Your task to perform on an android device: turn off sleep mode Image 0: 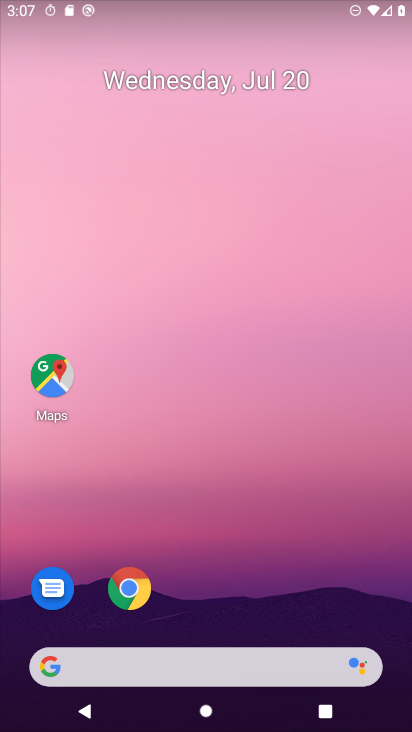
Step 0: drag from (208, 624) to (95, 105)
Your task to perform on an android device: turn off sleep mode Image 1: 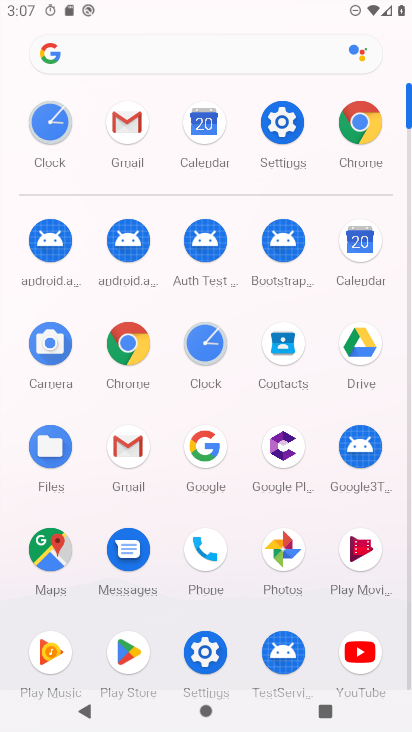
Step 1: click (289, 120)
Your task to perform on an android device: turn off sleep mode Image 2: 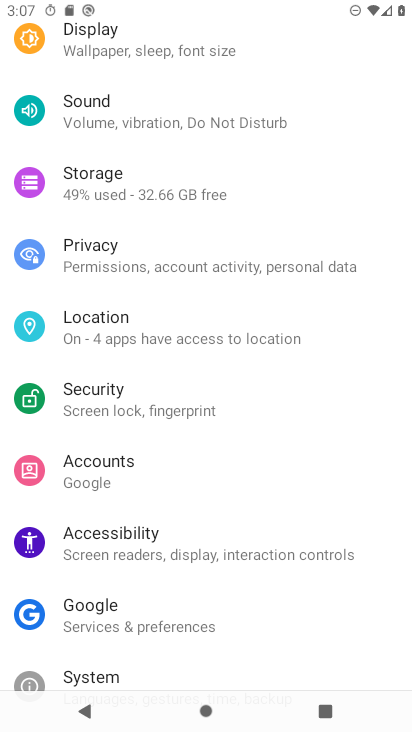
Step 2: click (160, 42)
Your task to perform on an android device: turn off sleep mode Image 3: 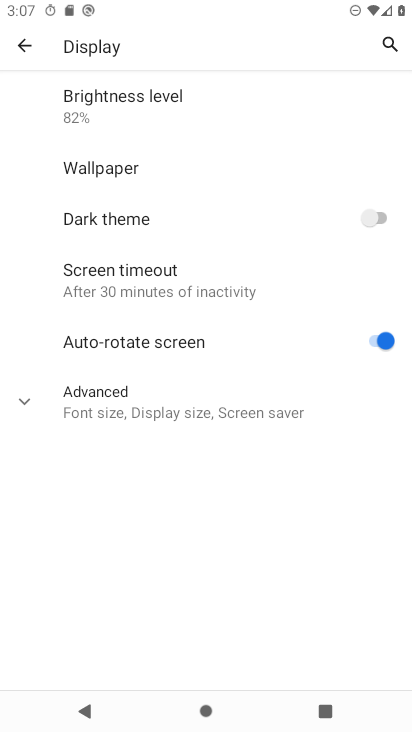
Step 3: task complete